Your task to perform on an android device: Open network settings Image 0: 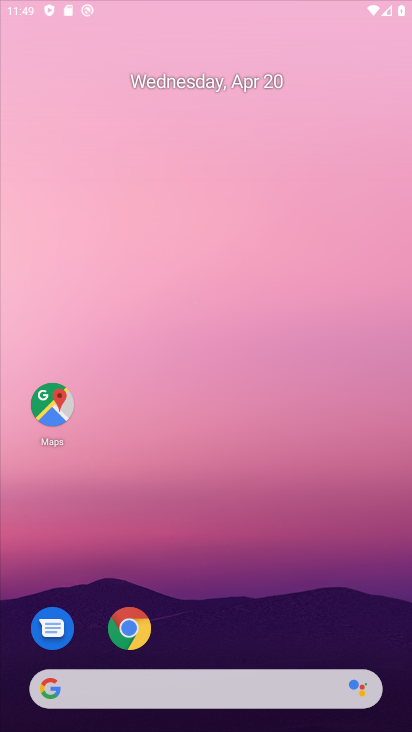
Step 0: click (230, 125)
Your task to perform on an android device: Open network settings Image 1: 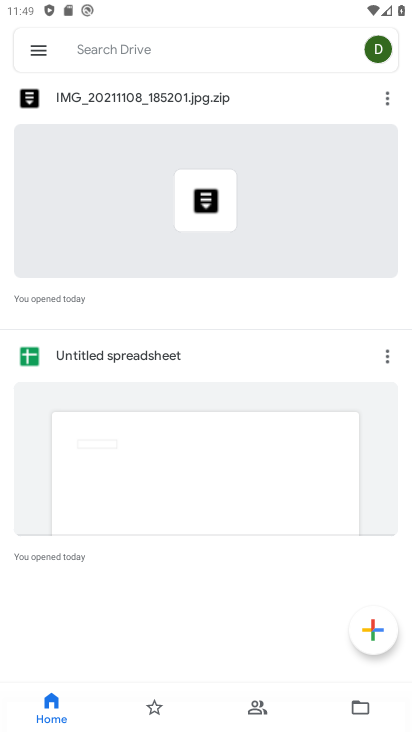
Step 1: press home button
Your task to perform on an android device: Open network settings Image 2: 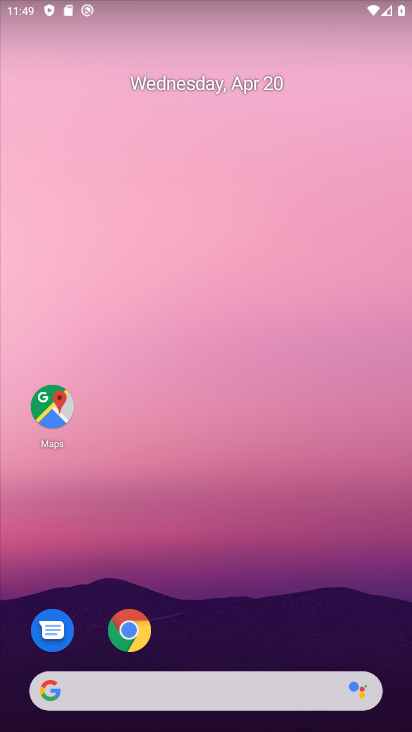
Step 2: drag from (367, 629) to (322, 170)
Your task to perform on an android device: Open network settings Image 3: 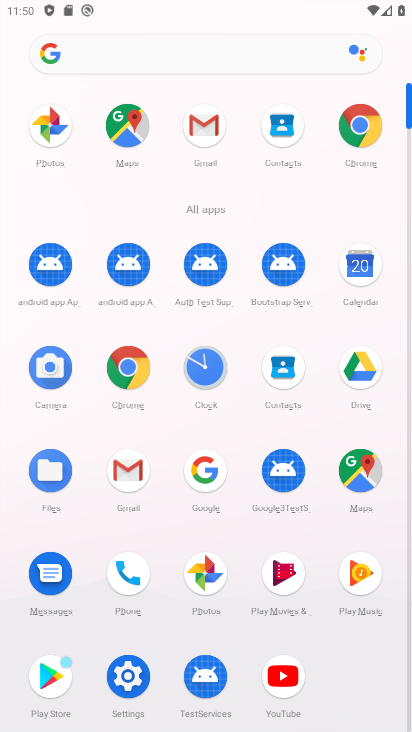
Step 3: click (119, 678)
Your task to perform on an android device: Open network settings Image 4: 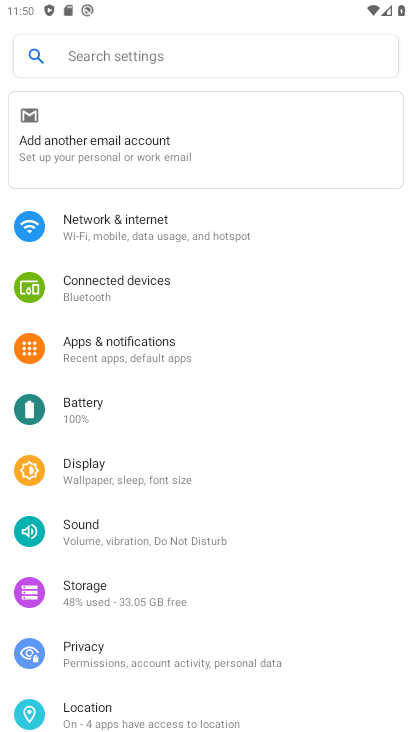
Step 4: click (293, 226)
Your task to perform on an android device: Open network settings Image 5: 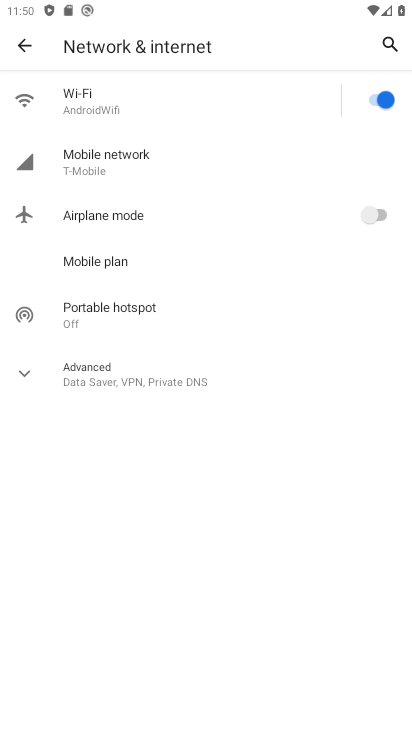
Step 5: task complete